Your task to perform on an android device: star an email in the gmail app Image 0: 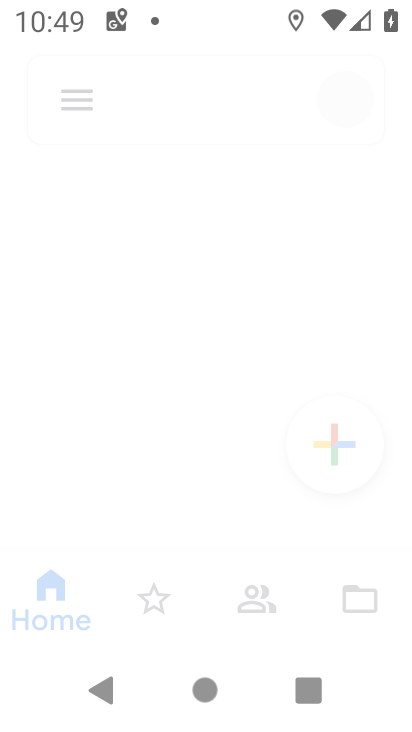
Step 0: drag from (394, 610) to (321, 164)
Your task to perform on an android device: star an email in the gmail app Image 1: 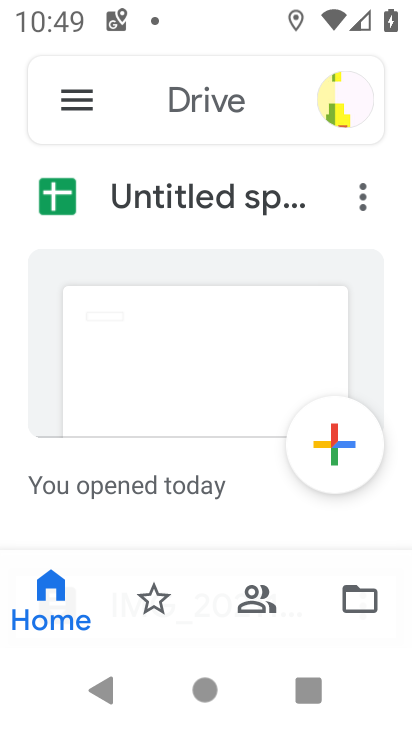
Step 1: press home button
Your task to perform on an android device: star an email in the gmail app Image 2: 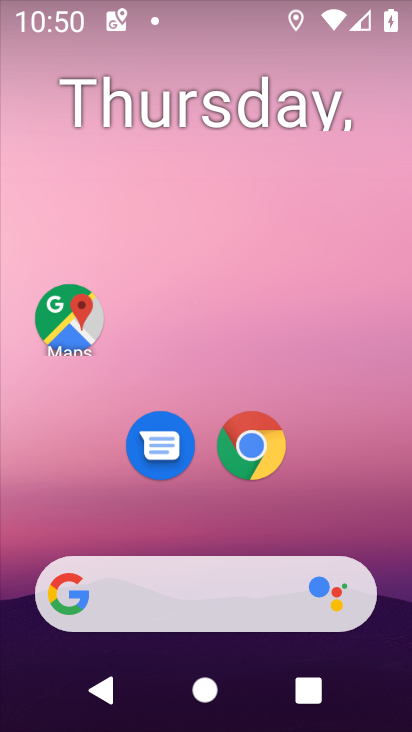
Step 2: drag from (391, 604) to (272, 31)
Your task to perform on an android device: star an email in the gmail app Image 3: 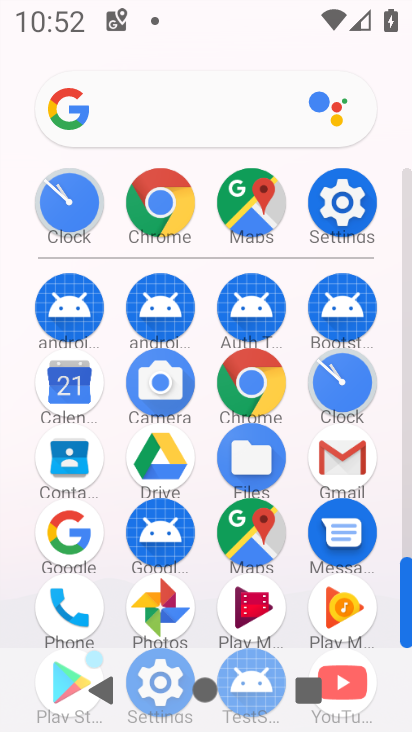
Step 3: click (357, 456)
Your task to perform on an android device: star an email in the gmail app Image 4: 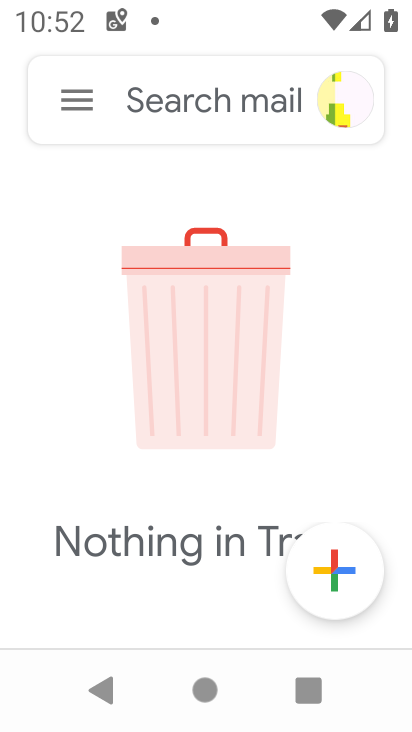
Step 4: click (80, 108)
Your task to perform on an android device: star an email in the gmail app Image 5: 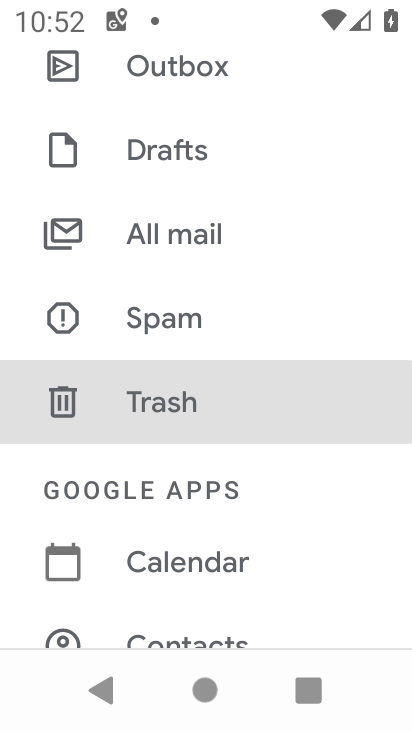
Step 5: drag from (94, 118) to (159, 585)
Your task to perform on an android device: star an email in the gmail app Image 6: 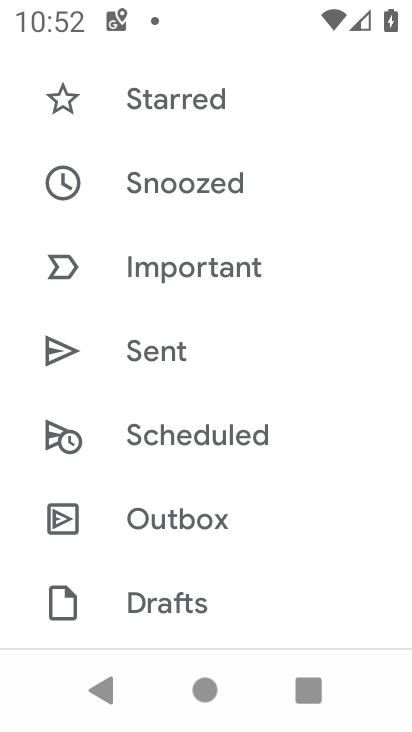
Step 6: drag from (246, 139) to (245, 606)
Your task to perform on an android device: star an email in the gmail app Image 7: 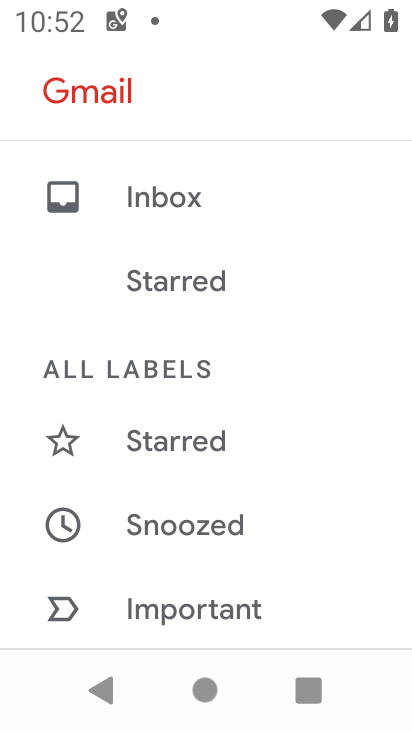
Step 7: click (207, 191)
Your task to perform on an android device: star an email in the gmail app Image 8: 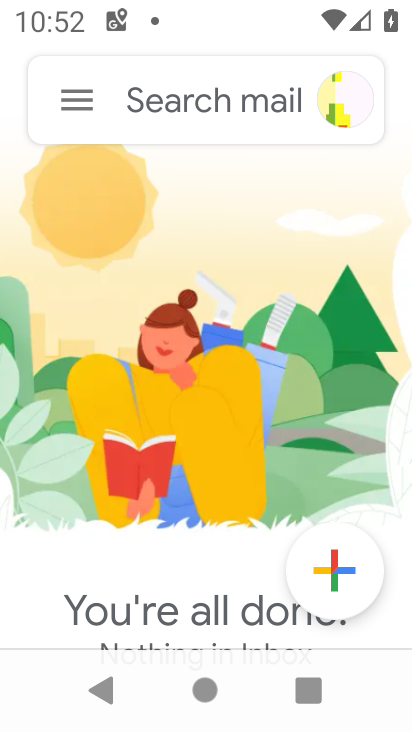
Step 8: task complete